Your task to perform on an android device: check battery use Image 0: 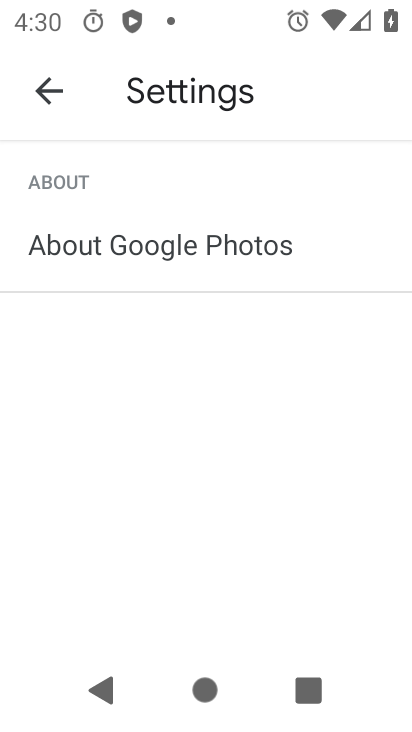
Step 0: press home button
Your task to perform on an android device: check battery use Image 1: 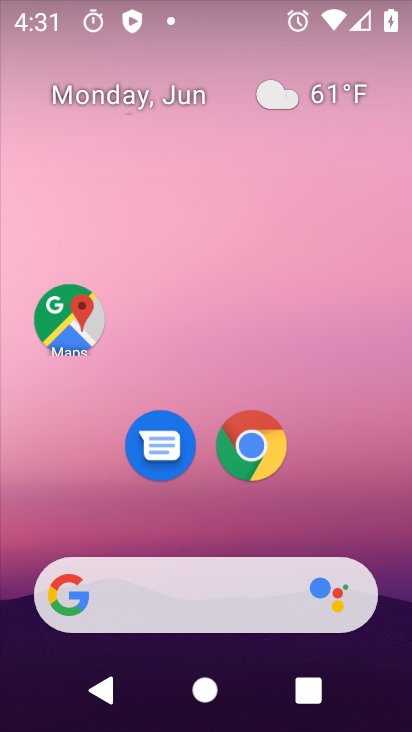
Step 1: drag from (174, 501) to (262, 88)
Your task to perform on an android device: check battery use Image 2: 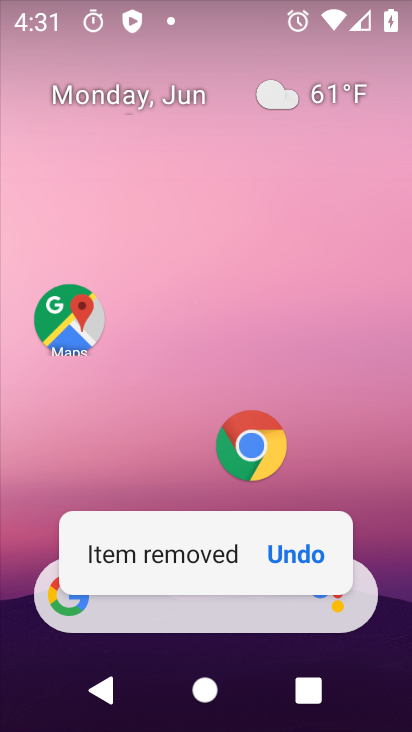
Step 2: click (271, 556)
Your task to perform on an android device: check battery use Image 3: 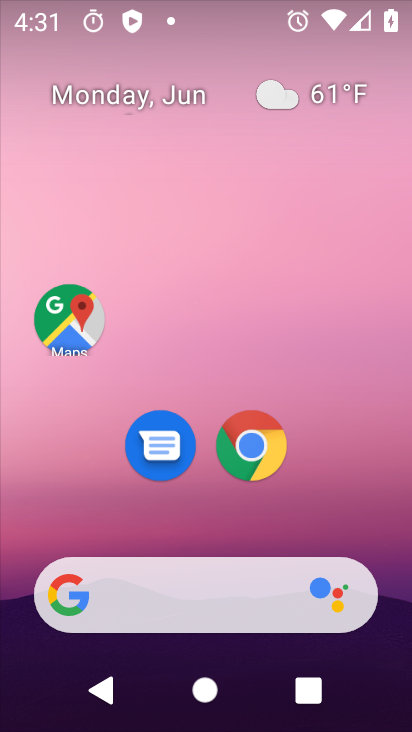
Step 3: drag from (217, 541) to (249, 150)
Your task to perform on an android device: check battery use Image 4: 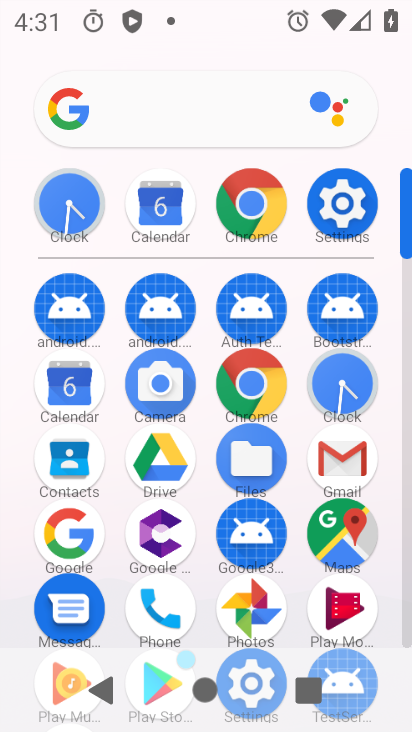
Step 4: click (342, 213)
Your task to perform on an android device: check battery use Image 5: 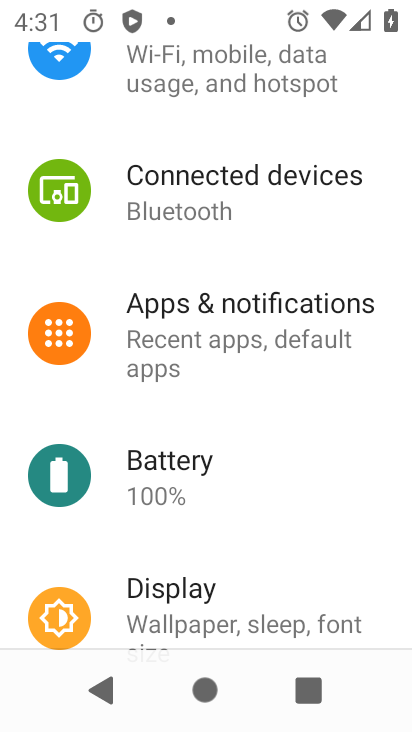
Step 5: click (184, 476)
Your task to perform on an android device: check battery use Image 6: 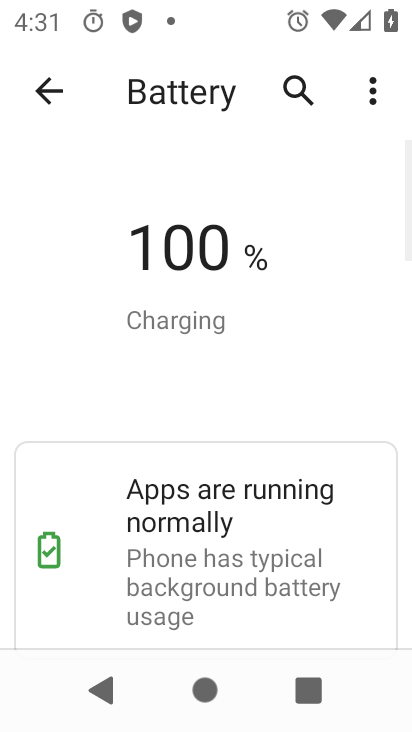
Step 6: task complete